Your task to perform on an android device: Open Google Chrome and open the bookmarks view Image 0: 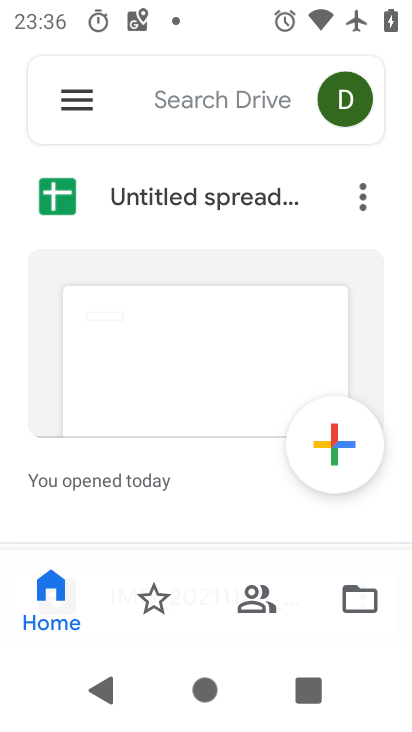
Step 0: press home button
Your task to perform on an android device: Open Google Chrome and open the bookmarks view Image 1: 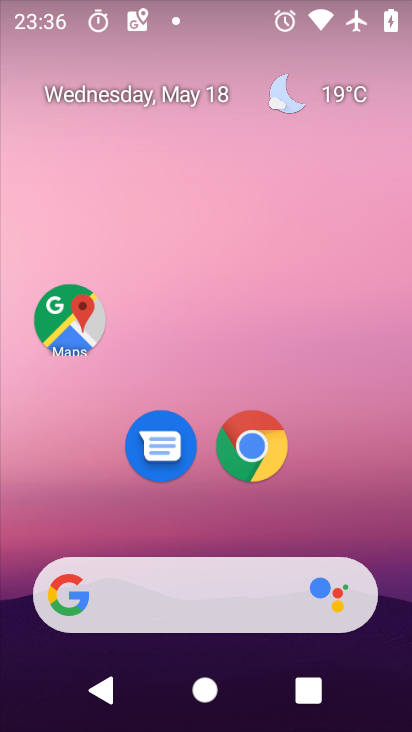
Step 1: drag from (210, 535) to (308, 215)
Your task to perform on an android device: Open Google Chrome and open the bookmarks view Image 2: 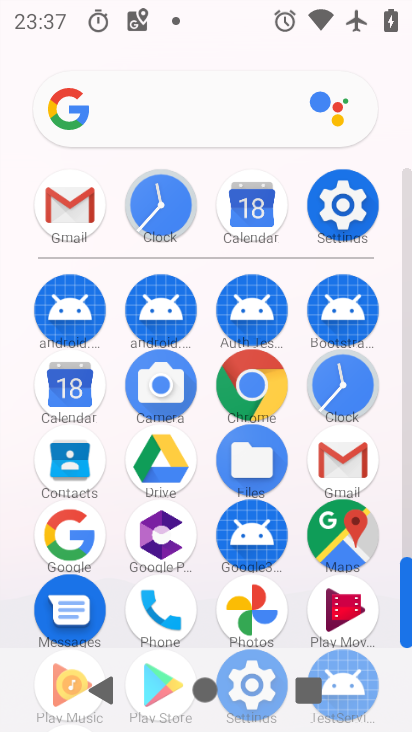
Step 2: click (245, 392)
Your task to perform on an android device: Open Google Chrome and open the bookmarks view Image 3: 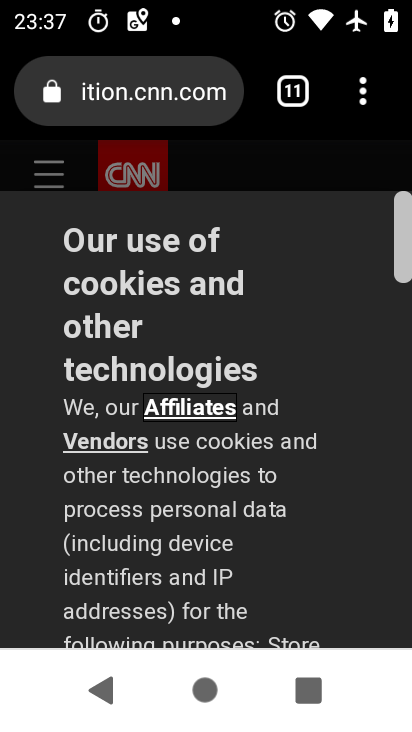
Step 3: task complete